Your task to perform on an android device: Open settings on Google Maps Image 0: 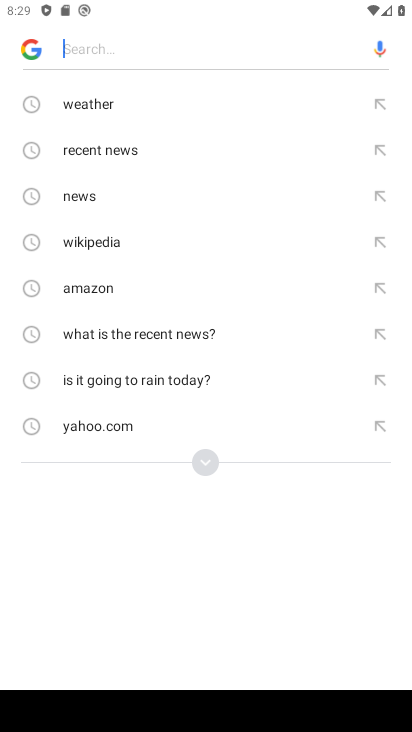
Step 0: press home button
Your task to perform on an android device: Open settings on Google Maps Image 1: 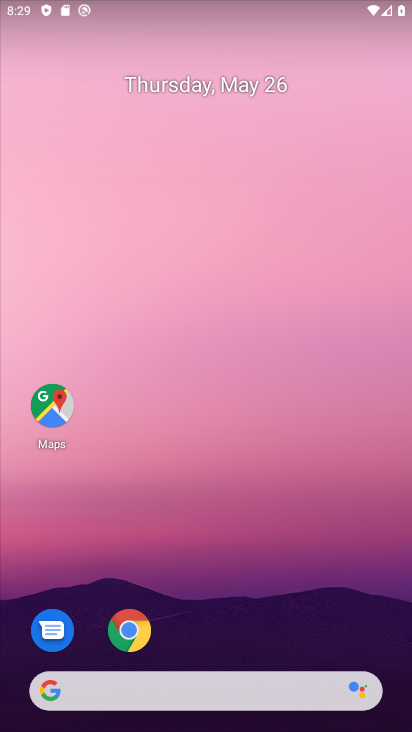
Step 1: click (44, 394)
Your task to perform on an android device: Open settings on Google Maps Image 2: 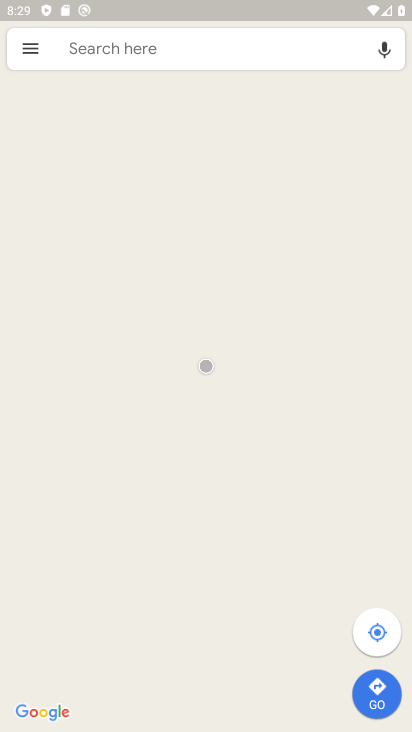
Step 2: click (33, 53)
Your task to perform on an android device: Open settings on Google Maps Image 3: 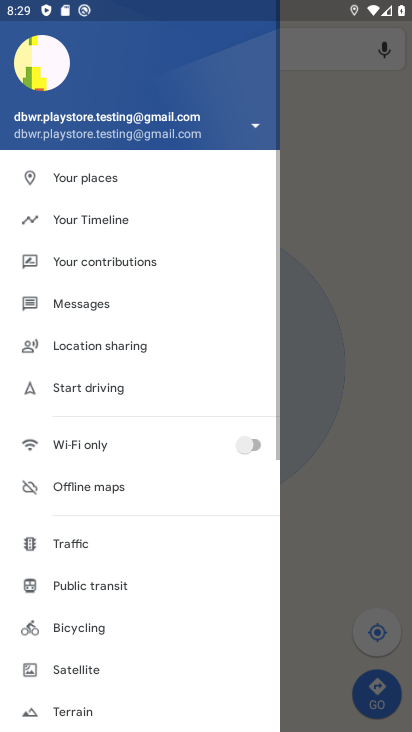
Step 3: drag from (209, 668) to (214, 204)
Your task to perform on an android device: Open settings on Google Maps Image 4: 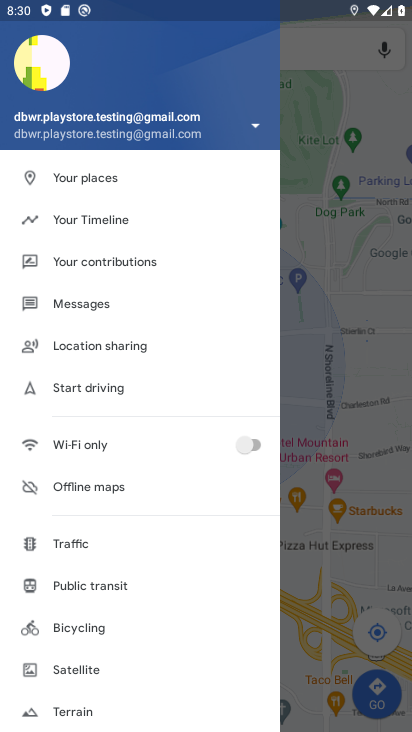
Step 4: drag from (128, 696) to (134, 358)
Your task to perform on an android device: Open settings on Google Maps Image 5: 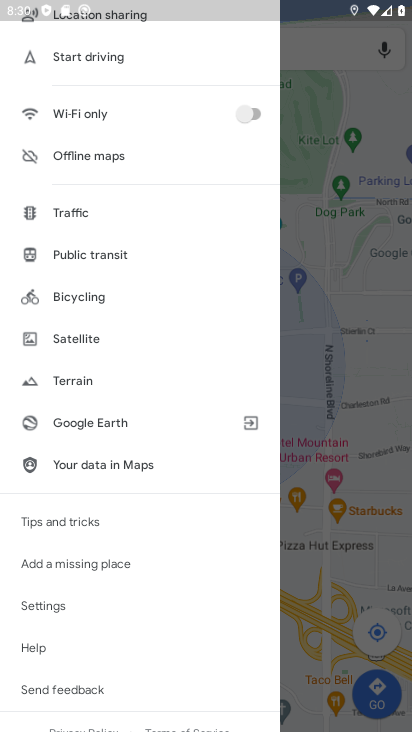
Step 5: click (45, 596)
Your task to perform on an android device: Open settings on Google Maps Image 6: 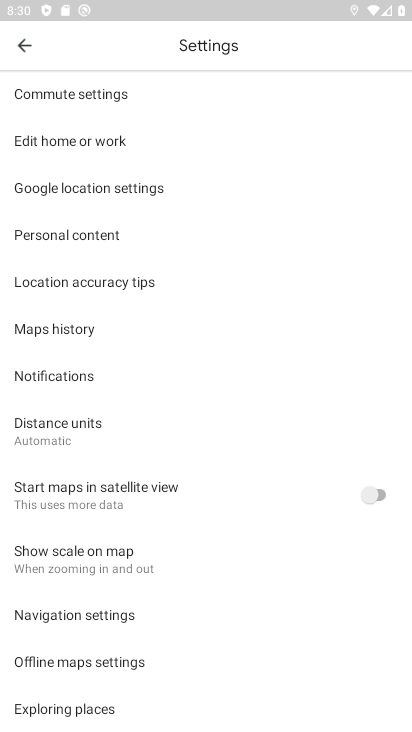
Step 6: task complete